Your task to perform on an android device: Open internet settings Image 0: 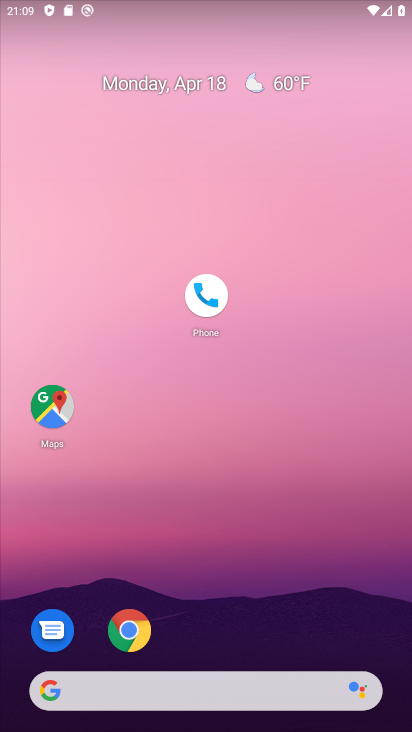
Step 0: drag from (302, 618) to (301, 582)
Your task to perform on an android device: Open internet settings Image 1: 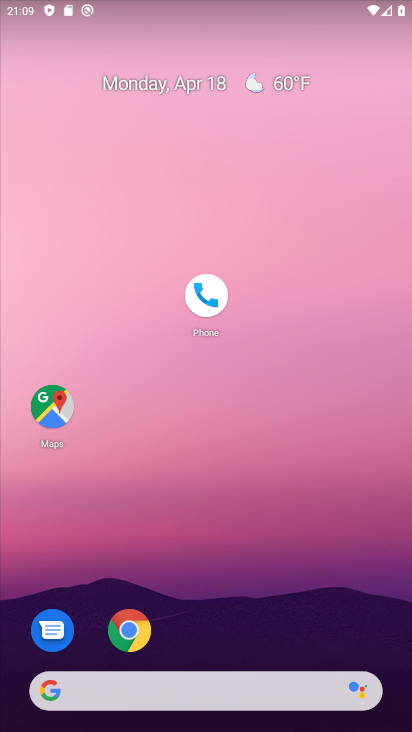
Step 1: drag from (268, 620) to (314, 120)
Your task to perform on an android device: Open internet settings Image 2: 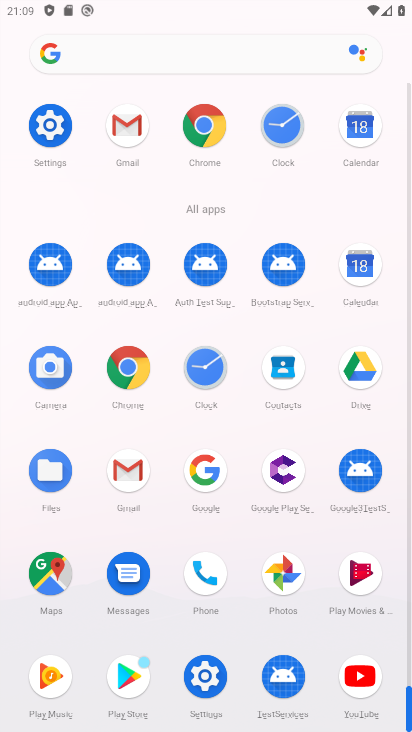
Step 2: click (56, 130)
Your task to perform on an android device: Open internet settings Image 3: 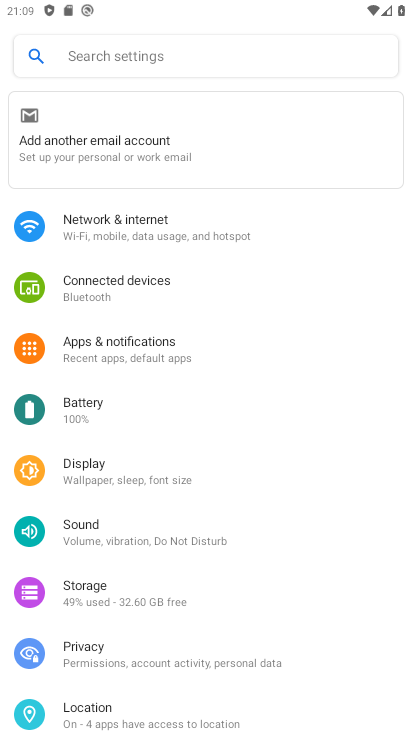
Step 3: click (127, 222)
Your task to perform on an android device: Open internet settings Image 4: 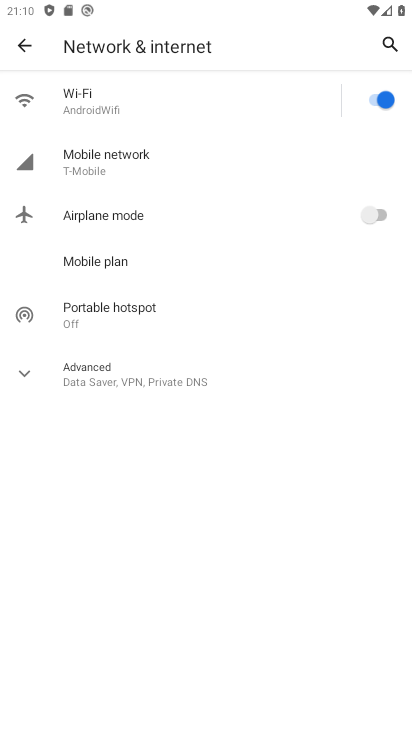
Step 4: click (125, 395)
Your task to perform on an android device: Open internet settings Image 5: 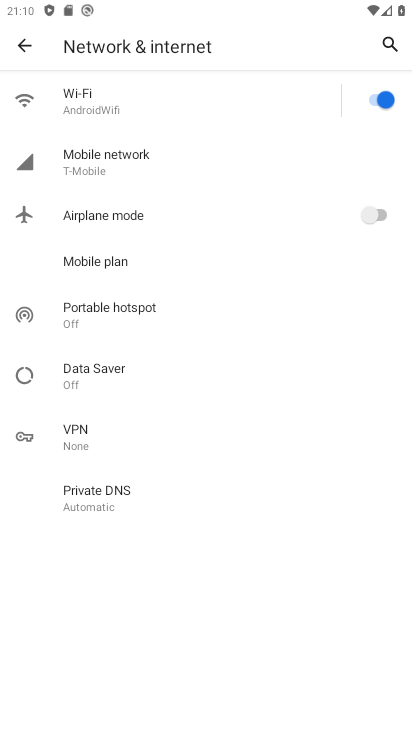
Step 5: task complete